Your task to perform on an android device: Open the calendar and show me this week's events? Image 0: 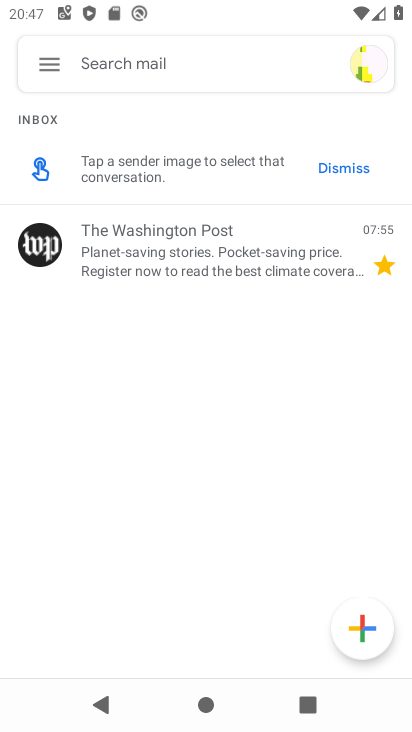
Step 0: press home button
Your task to perform on an android device: Open the calendar and show me this week's events? Image 1: 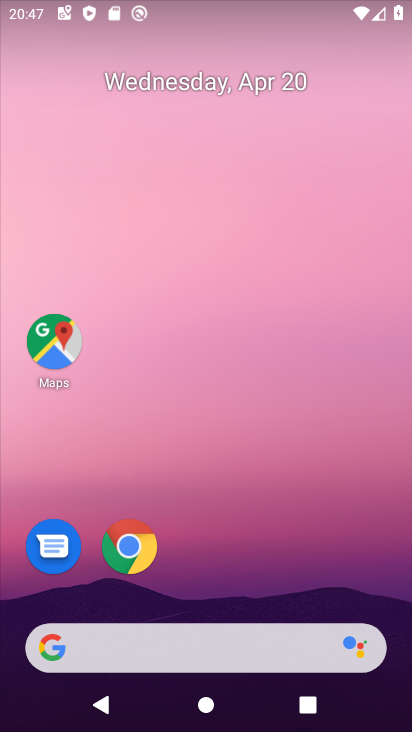
Step 1: drag from (285, 571) to (242, 198)
Your task to perform on an android device: Open the calendar and show me this week's events? Image 2: 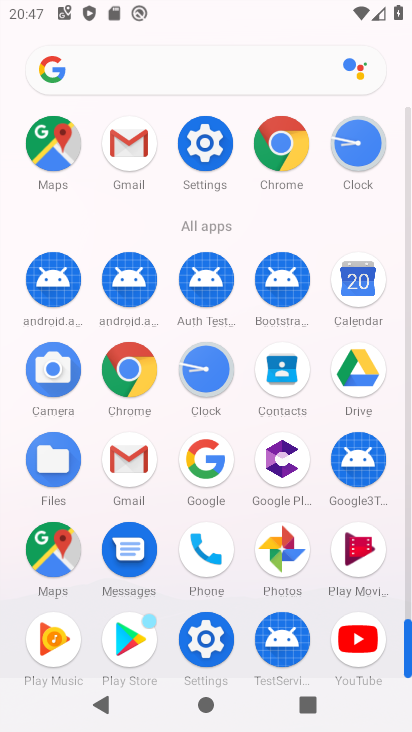
Step 2: click (346, 300)
Your task to perform on an android device: Open the calendar and show me this week's events? Image 3: 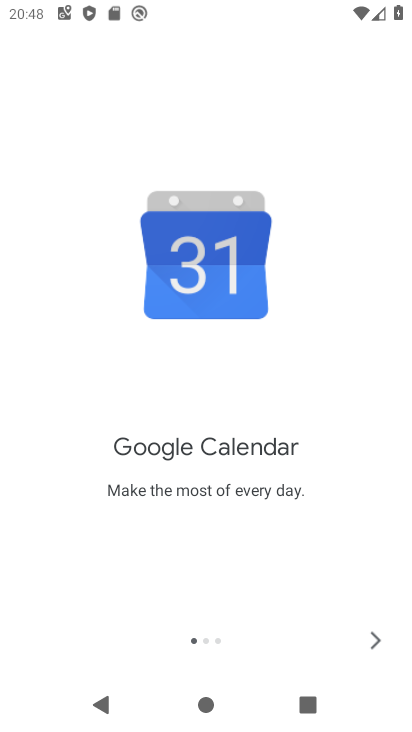
Step 3: click (371, 634)
Your task to perform on an android device: Open the calendar and show me this week's events? Image 4: 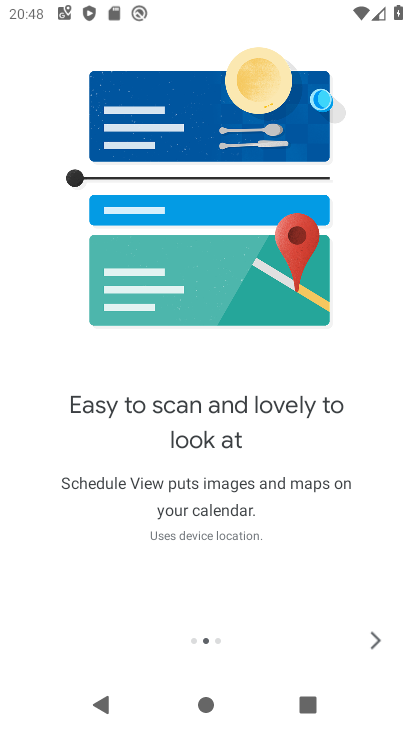
Step 4: click (371, 634)
Your task to perform on an android device: Open the calendar and show me this week's events? Image 5: 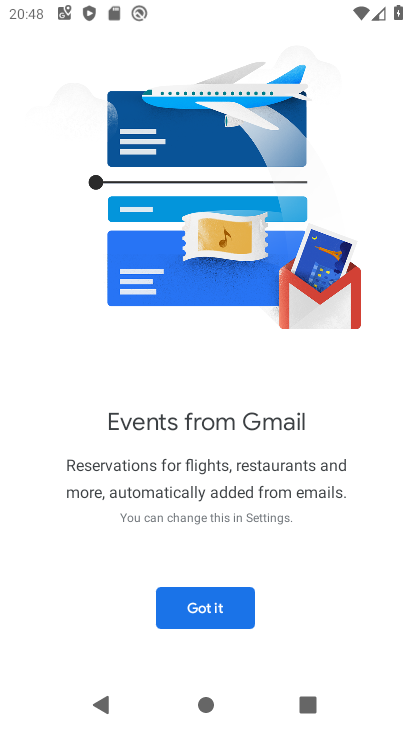
Step 5: click (370, 632)
Your task to perform on an android device: Open the calendar and show me this week's events? Image 6: 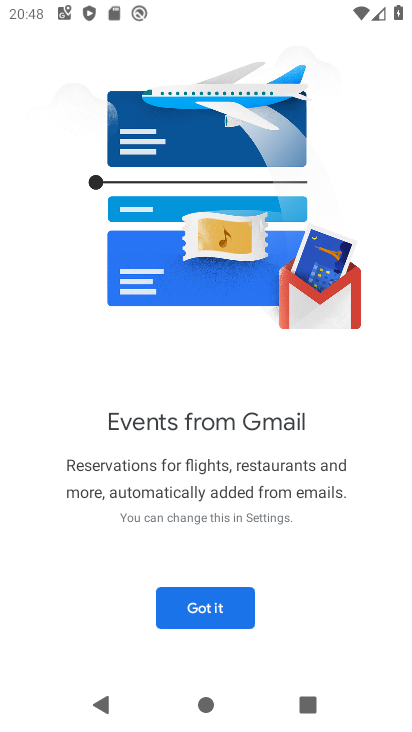
Step 6: click (178, 599)
Your task to perform on an android device: Open the calendar and show me this week's events? Image 7: 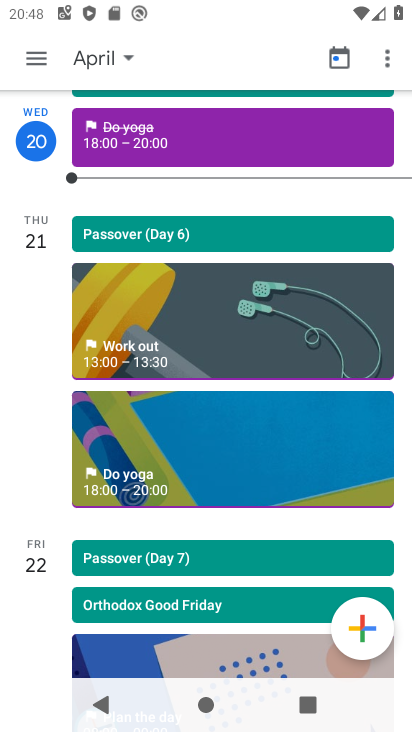
Step 7: click (38, 63)
Your task to perform on an android device: Open the calendar and show me this week's events? Image 8: 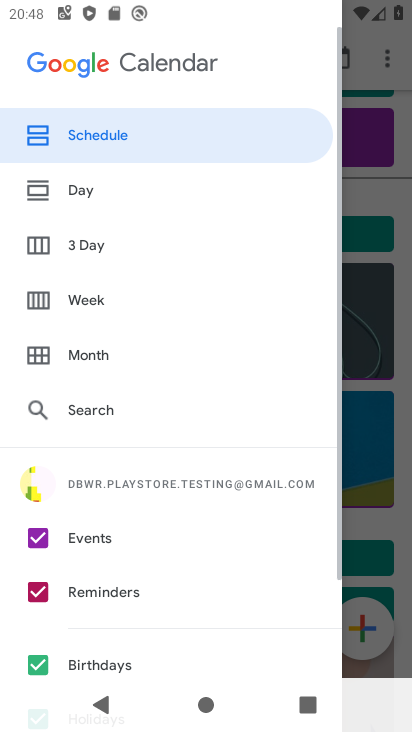
Step 8: click (101, 297)
Your task to perform on an android device: Open the calendar and show me this week's events? Image 9: 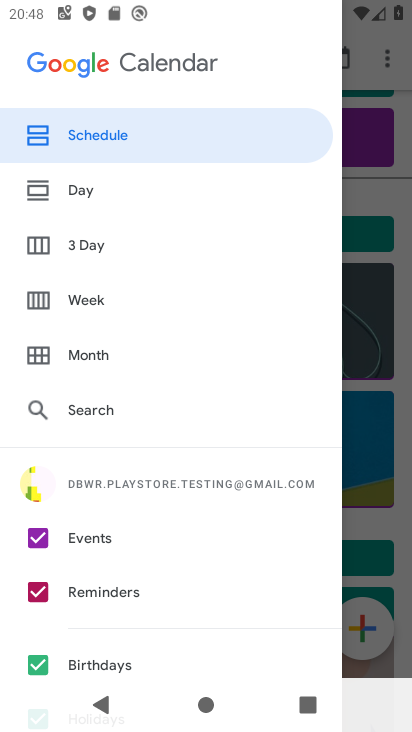
Step 9: click (115, 301)
Your task to perform on an android device: Open the calendar and show me this week's events? Image 10: 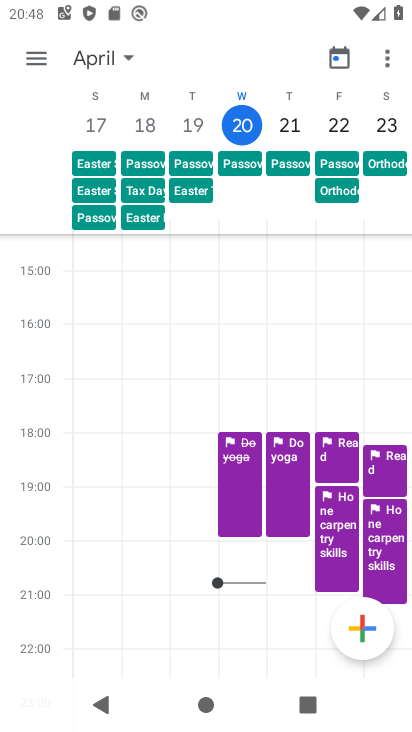
Step 10: task complete